Your task to perform on an android device: turn pop-ups on in chrome Image 0: 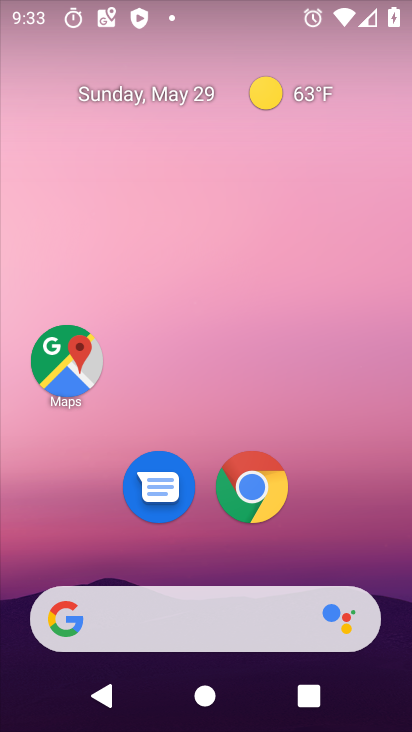
Step 0: drag from (189, 604) to (162, 168)
Your task to perform on an android device: turn pop-ups on in chrome Image 1: 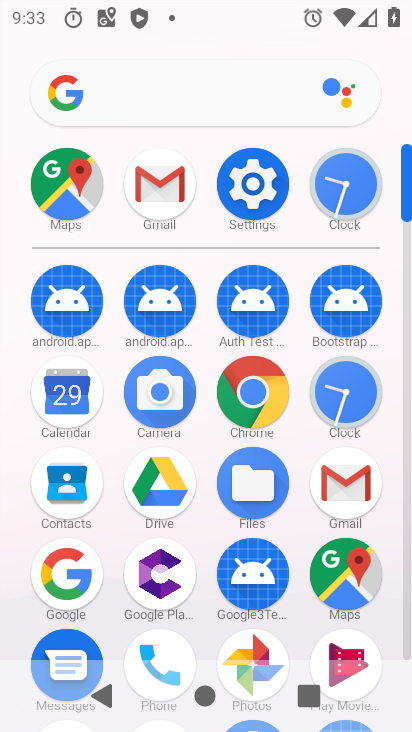
Step 1: click (249, 403)
Your task to perform on an android device: turn pop-ups on in chrome Image 2: 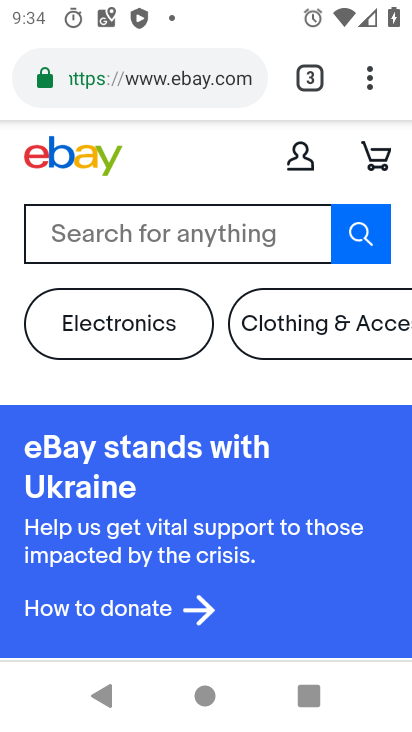
Step 2: click (379, 96)
Your task to perform on an android device: turn pop-ups on in chrome Image 3: 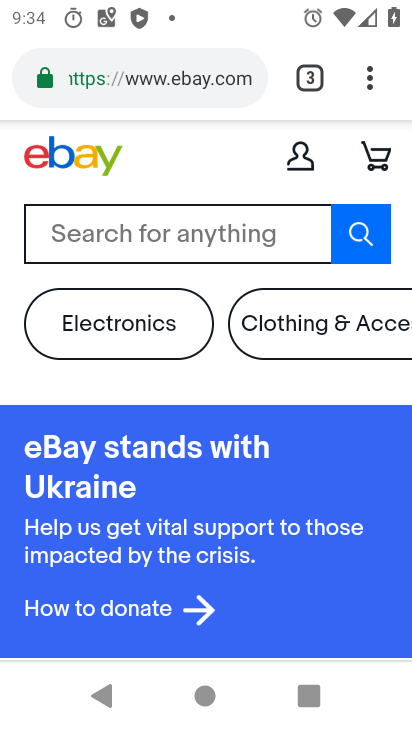
Step 3: click (372, 102)
Your task to perform on an android device: turn pop-ups on in chrome Image 4: 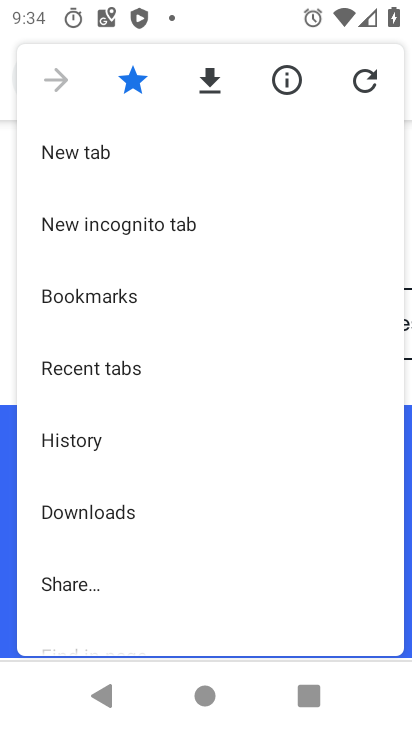
Step 4: drag from (149, 555) to (129, 284)
Your task to perform on an android device: turn pop-ups on in chrome Image 5: 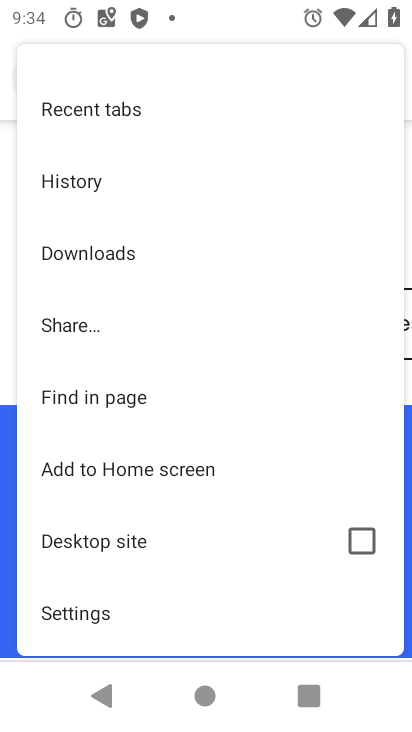
Step 5: drag from (96, 550) to (130, 315)
Your task to perform on an android device: turn pop-ups on in chrome Image 6: 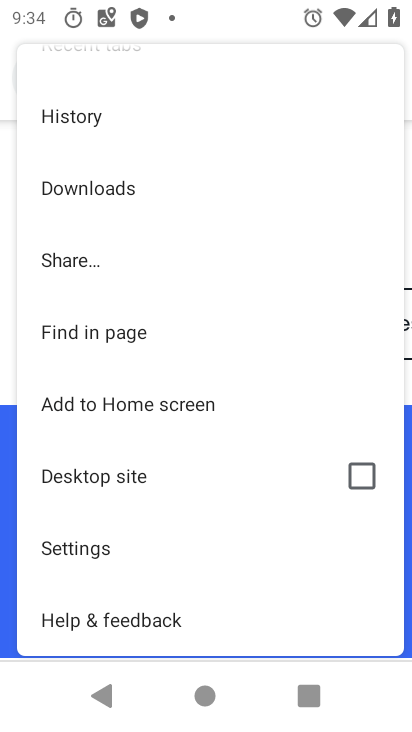
Step 6: click (100, 541)
Your task to perform on an android device: turn pop-ups on in chrome Image 7: 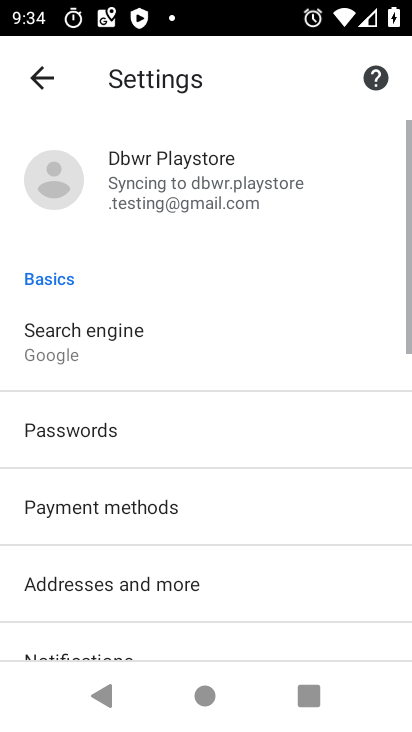
Step 7: drag from (100, 529) to (125, 345)
Your task to perform on an android device: turn pop-ups on in chrome Image 8: 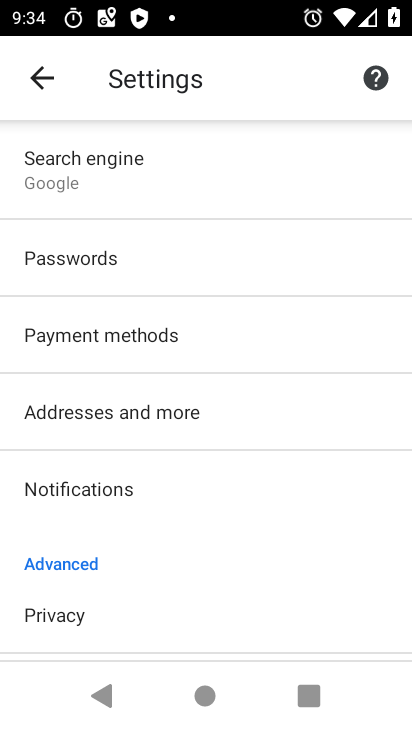
Step 8: drag from (125, 485) to (173, 291)
Your task to perform on an android device: turn pop-ups on in chrome Image 9: 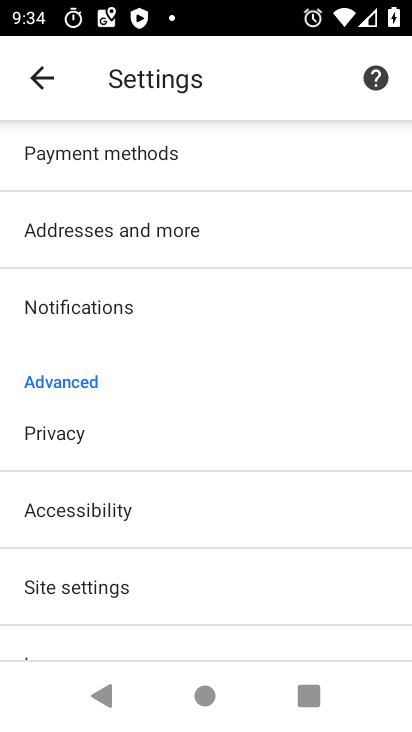
Step 9: click (134, 587)
Your task to perform on an android device: turn pop-ups on in chrome Image 10: 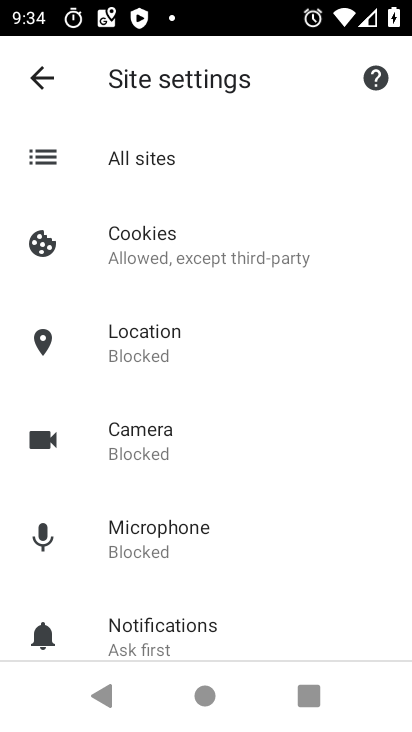
Step 10: drag from (137, 580) to (181, 306)
Your task to perform on an android device: turn pop-ups on in chrome Image 11: 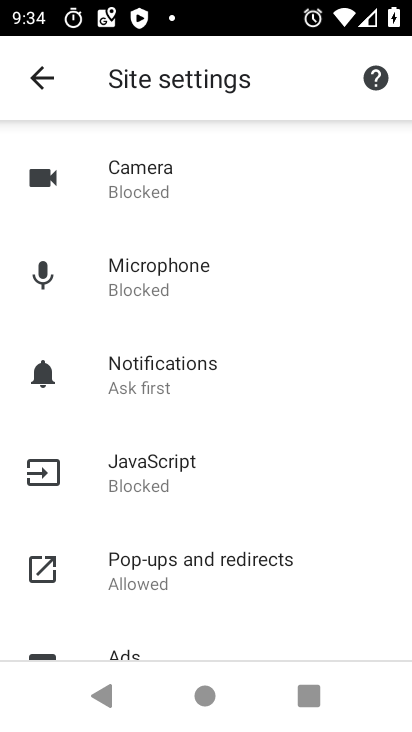
Step 11: click (188, 560)
Your task to perform on an android device: turn pop-ups on in chrome Image 12: 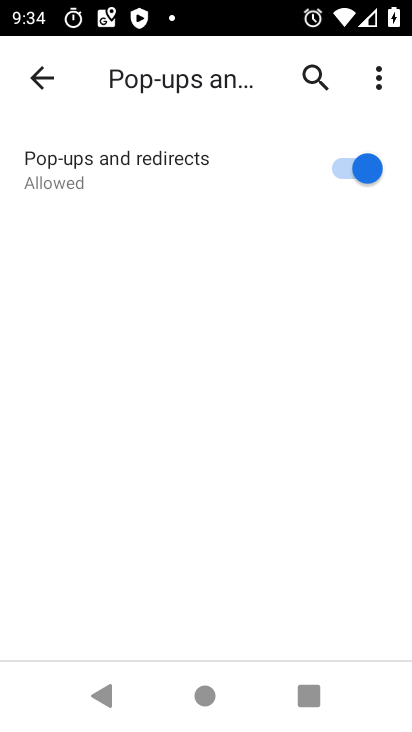
Step 12: task complete